Your task to perform on an android device: turn on data saver in the chrome app Image 0: 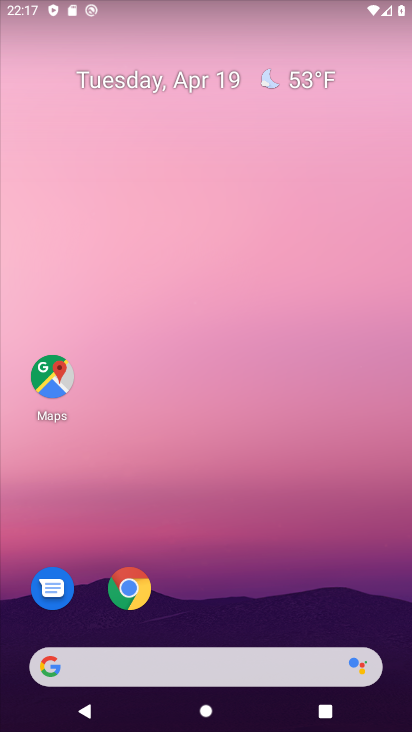
Step 0: click (132, 610)
Your task to perform on an android device: turn on data saver in the chrome app Image 1: 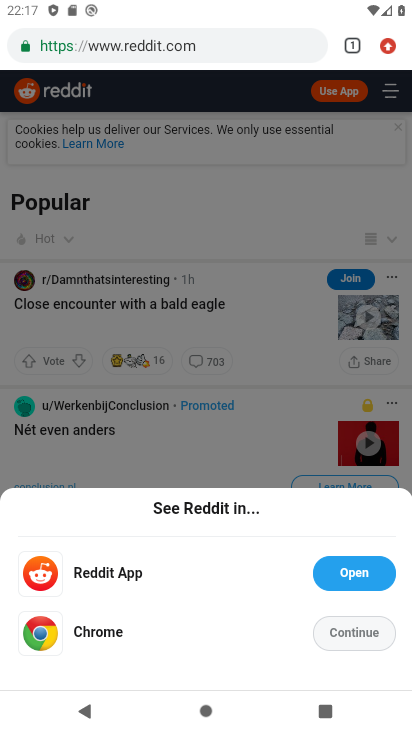
Step 1: drag from (387, 51) to (240, 611)
Your task to perform on an android device: turn on data saver in the chrome app Image 2: 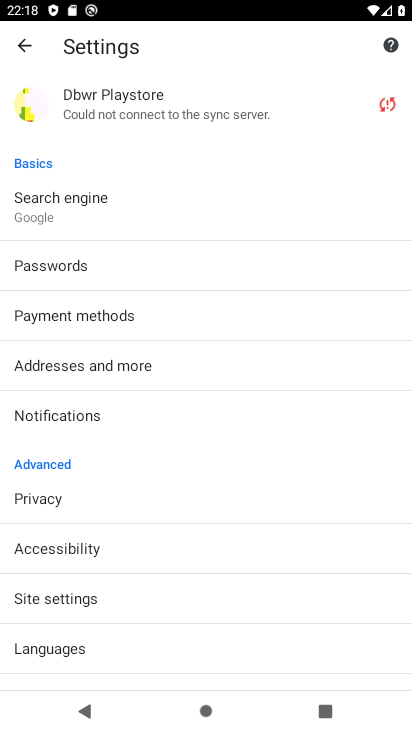
Step 2: drag from (113, 645) to (99, 327)
Your task to perform on an android device: turn on data saver in the chrome app Image 3: 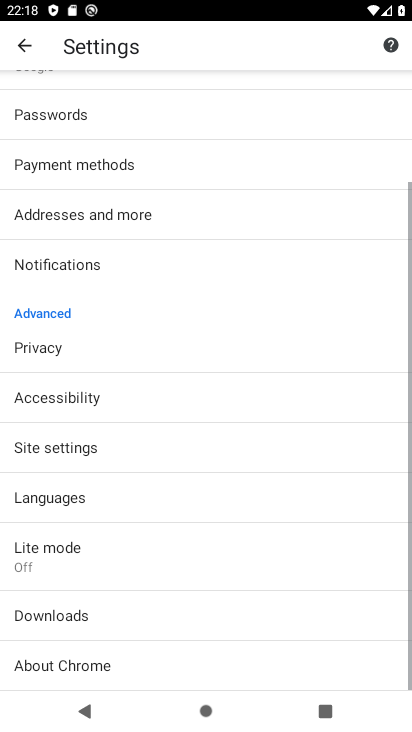
Step 3: click (96, 555)
Your task to perform on an android device: turn on data saver in the chrome app Image 4: 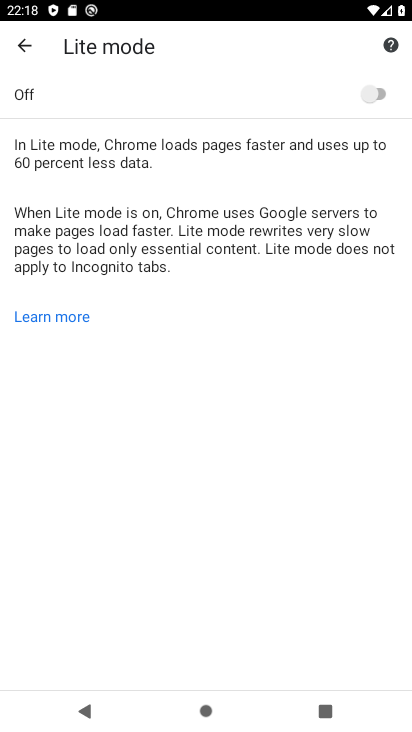
Step 4: click (383, 94)
Your task to perform on an android device: turn on data saver in the chrome app Image 5: 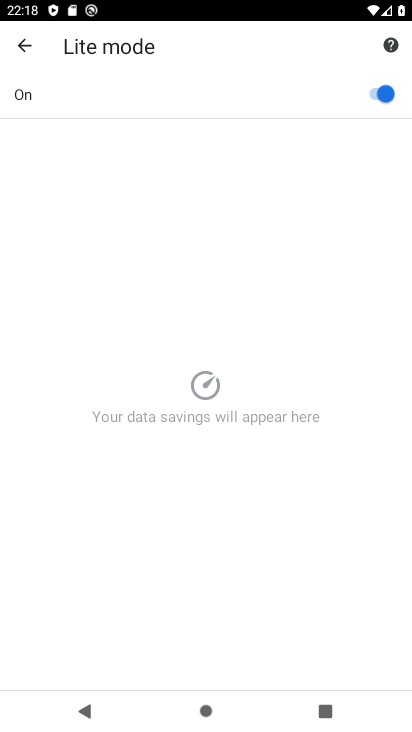
Step 5: task complete